Your task to perform on an android device: Open my contact list Image 0: 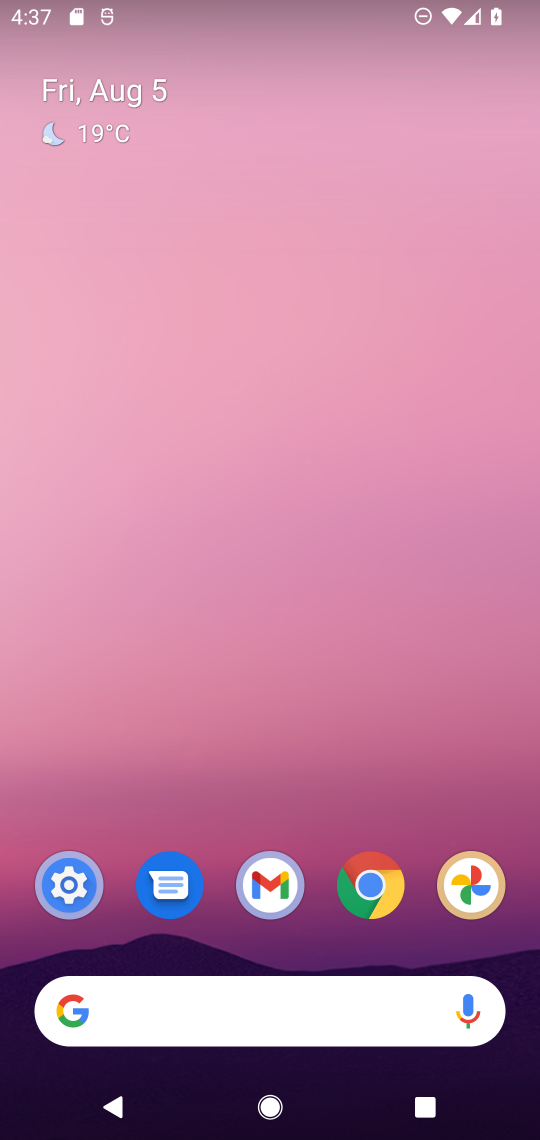
Step 0: drag from (301, 845) to (287, 213)
Your task to perform on an android device: Open my contact list Image 1: 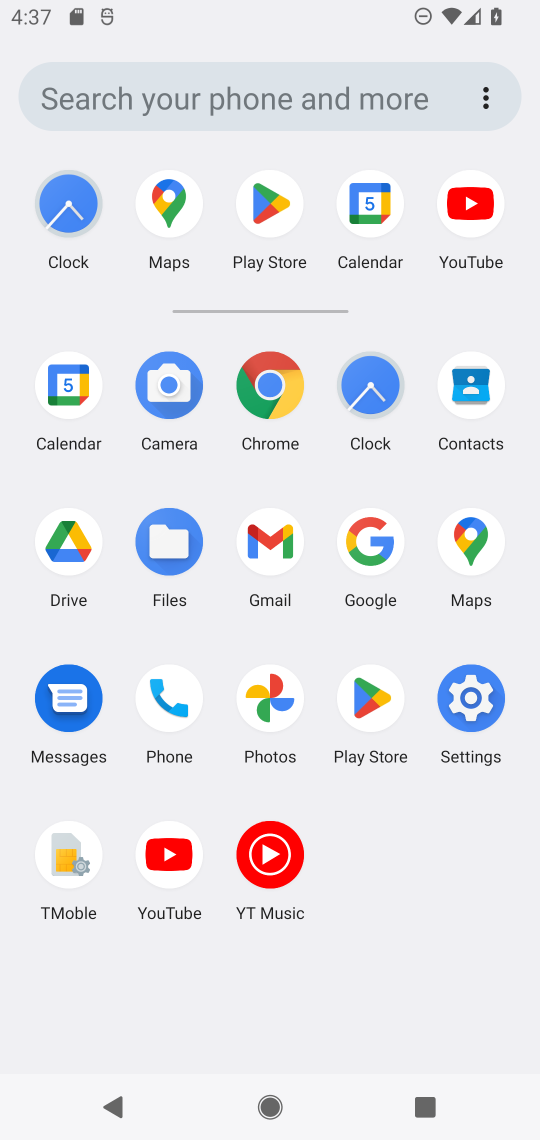
Step 1: click (468, 420)
Your task to perform on an android device: Open my contact list Image 2: 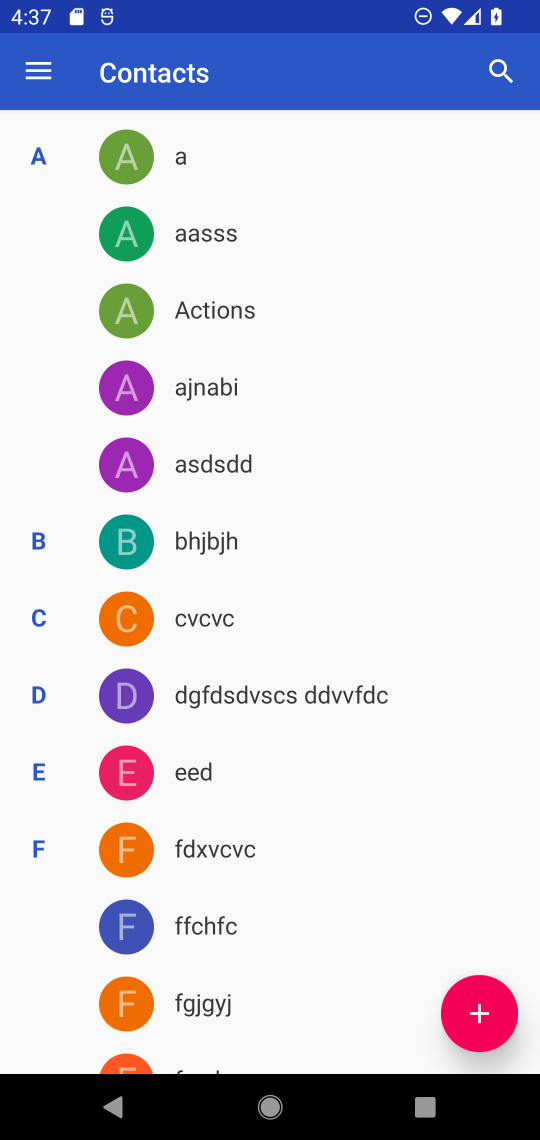
Step 2: task complete